Your task to perform on an android device: toggle improve location accuracy Image 0: 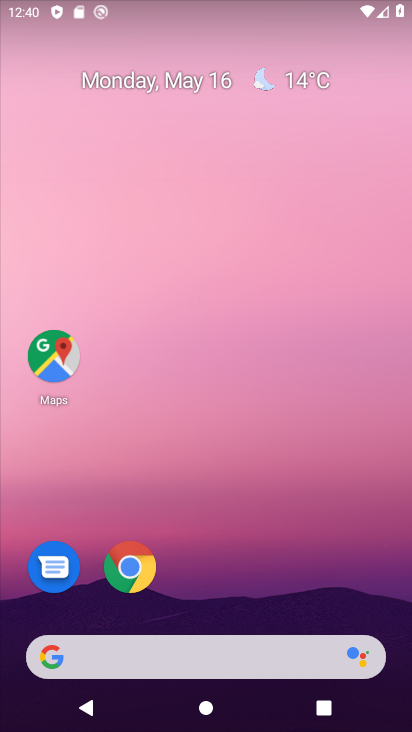
Step 0: drag from (215, 507) to (190, 44)
Your task to perform on an android device: toggle improve location accuracy Image 1: 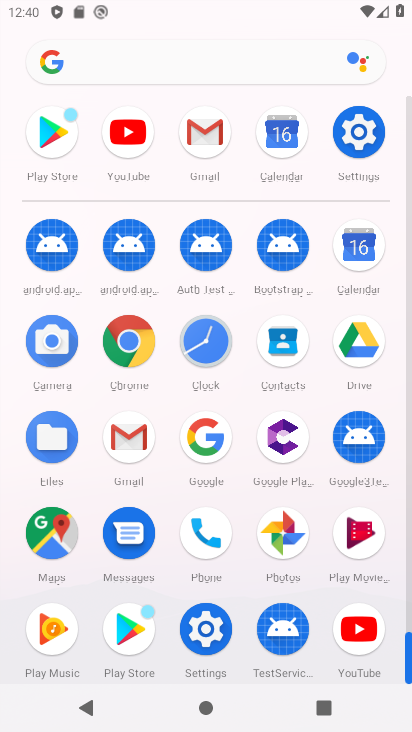
Step 1: click (358, 135)
Your task to perform on an android device: toggle improve location accuracy Image 2: 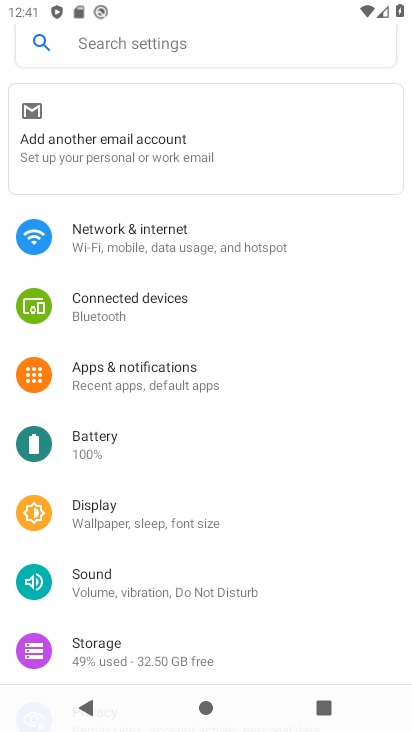
Step 2: drag from (185, 552) to (153, 343)
Your task to perform on an android device: toggle improve location accuracy Image 3: 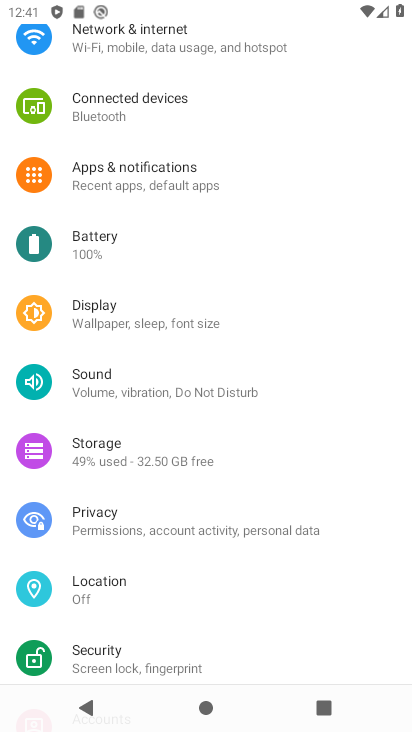
Step 3: click (89, 585)
Your task to perform on an android device: toggle improve location accuracy Image 4: 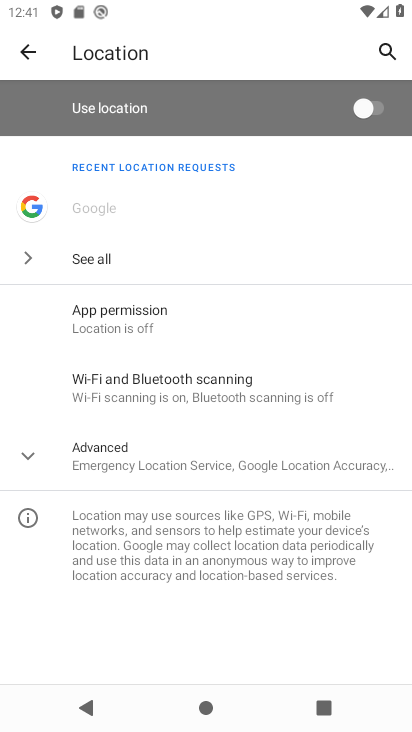
Step 4: click (32, 451)
Your task to perform on an android device: toggle improve location accuracy Image 5: 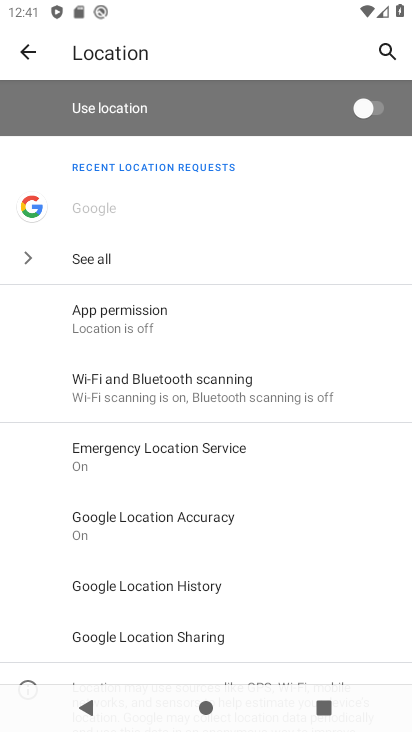
Step 5: click (152, 513)
Your task to perform on an android device: toggle improve location accuracy Image 6: 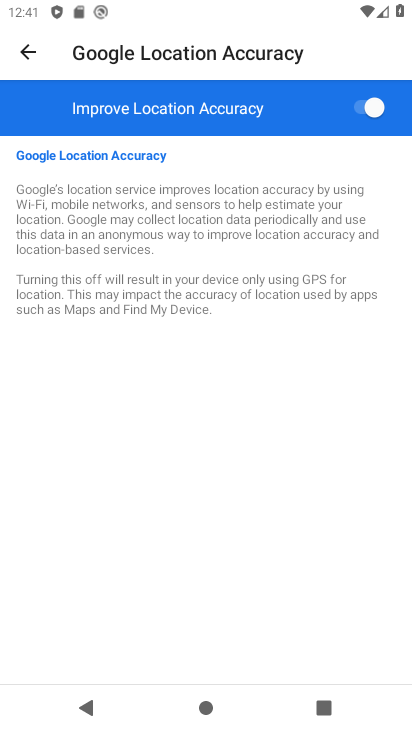
Step 6: click (373, 115)
Your task to perform on an android device: toggle improve location accuracy Image 7: 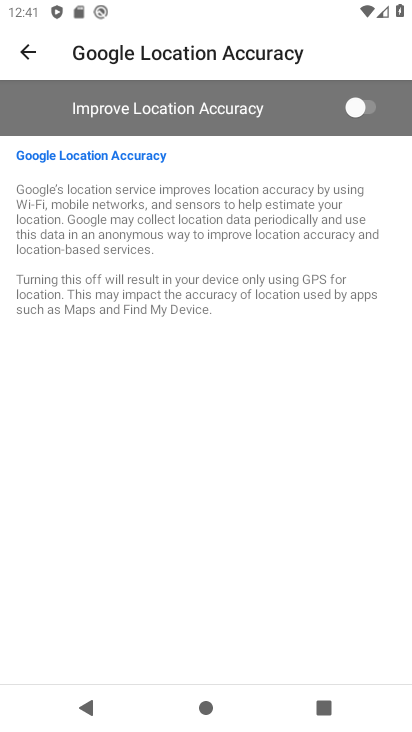
Step 7: task complete